Your task to perform on an android device: Go to ESPN.com Image 0: 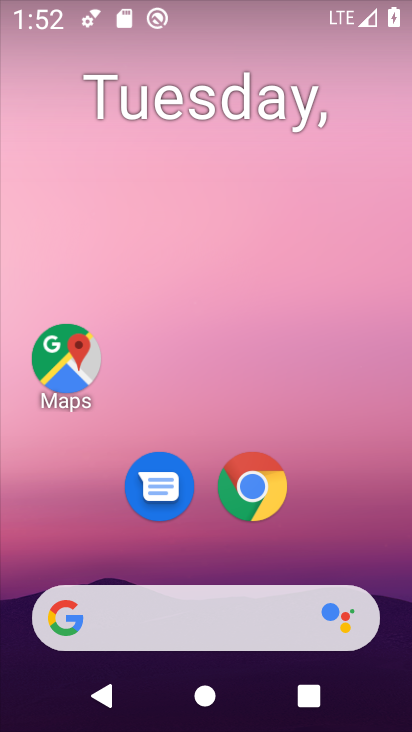
Step 0: press home button
Your task to perform on an android device: Go to ESPN.com Image 1: 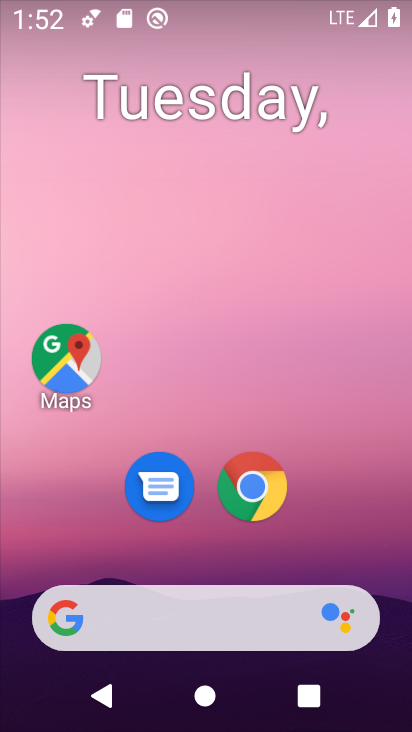
Step 1: drag from (367, 545) to (367, 102)
Your task to perform on an android device: Go to ESPN.com Image 2: 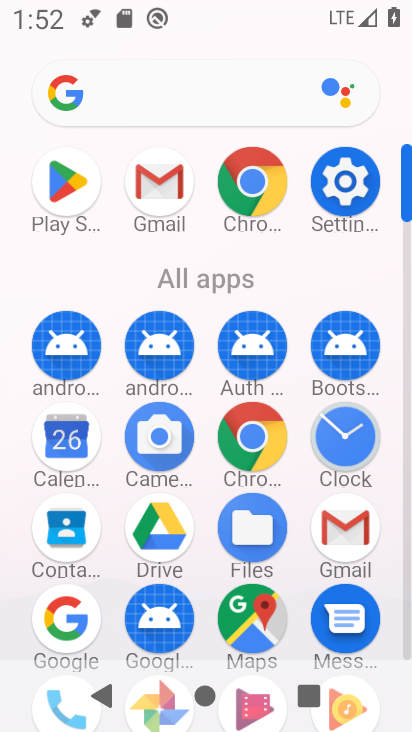
Step 2: click (257, 453)
Your task to perform on an android device: Go to ESPN.com Image 3: 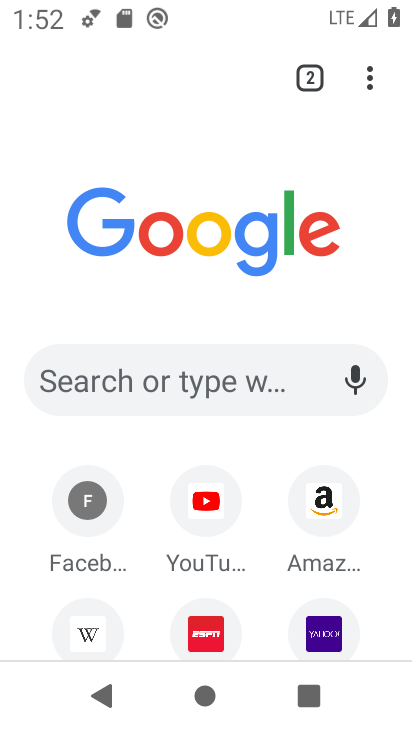
Step 3: click (239, 381)
Your task to perform on an android device: Go to ESPN.com Image 4: 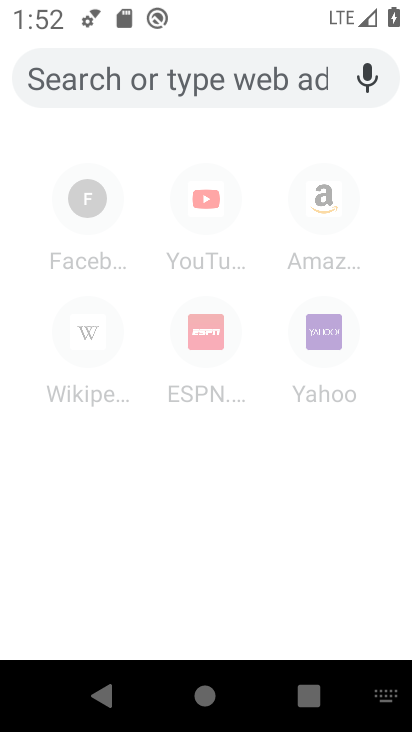
Step 4: type "espn.com"
Your task to perform on an android device: Go to ESPN.com Image 5: 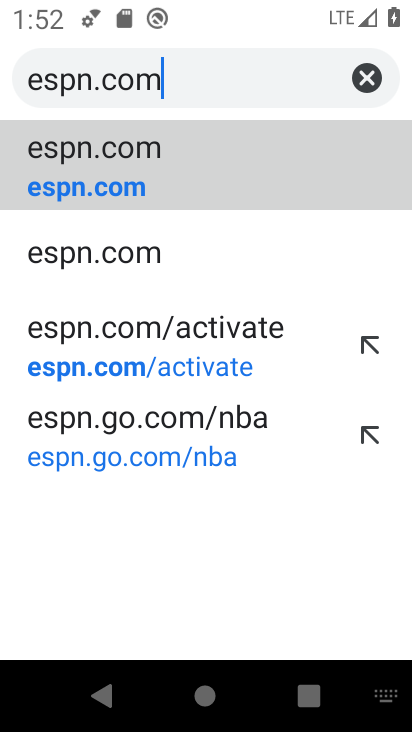
Step 5: click (180, 171)
Your task to perform on an android device: Go to ESPN.com Image 6: 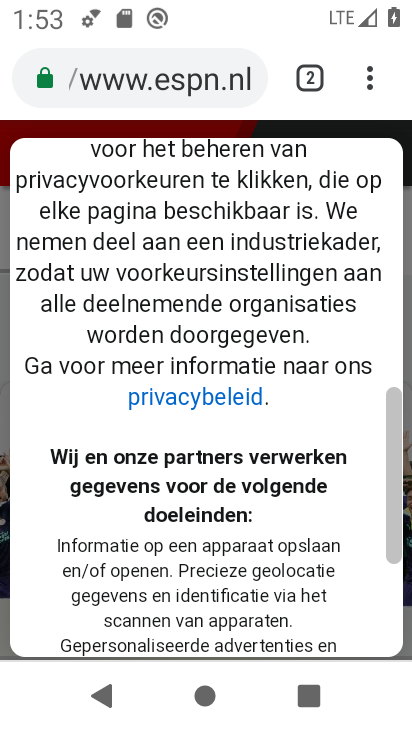
Step 6: task complete